Your task to perform on an android device: turn on data saver in the chrome app Image 0: 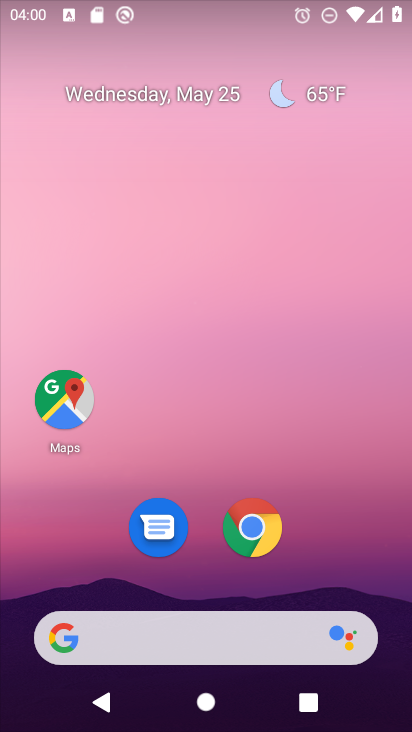
Step 0: drag from (257, 653) to (342, 29)
Your task to perform on an android device: turn on data saver in the chrome app Image 1: 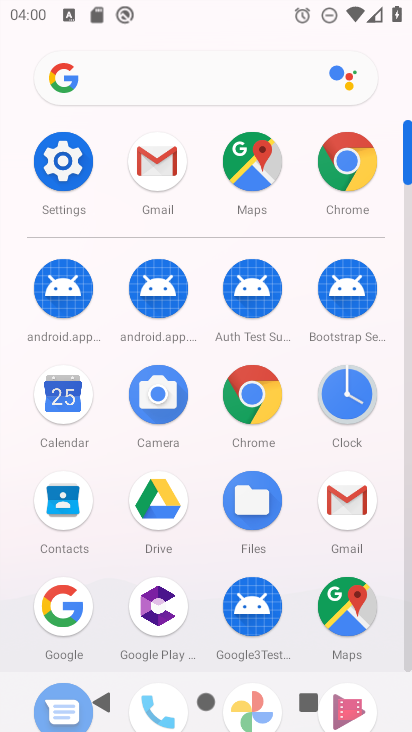
Step 1: click (256, 412)
Your task to perform on an android device: turn on data saver in the chrome app Image 2: 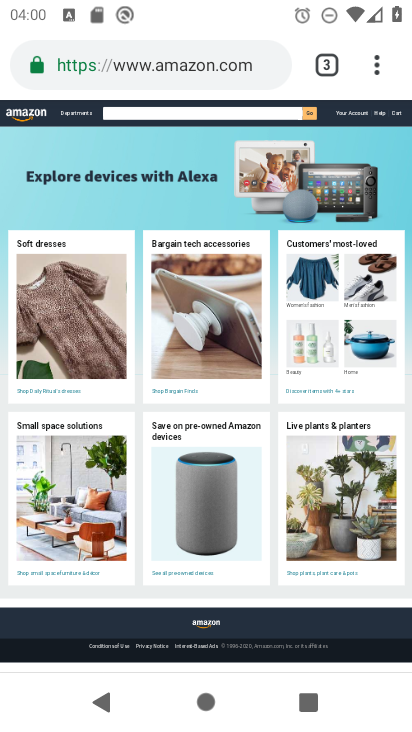
Step 2: drag from (385, 48) to (152, 640)
Your task to perform on an android device: turn on data saver in the chrome app Image 3: 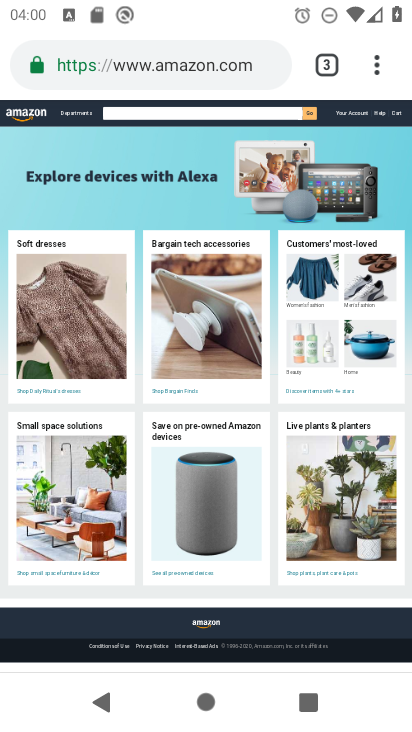
Step 3: drag from (163, 617) to (230, 144)
Your task to perform on an android device: turn on data saver in the chrome app Image 4: 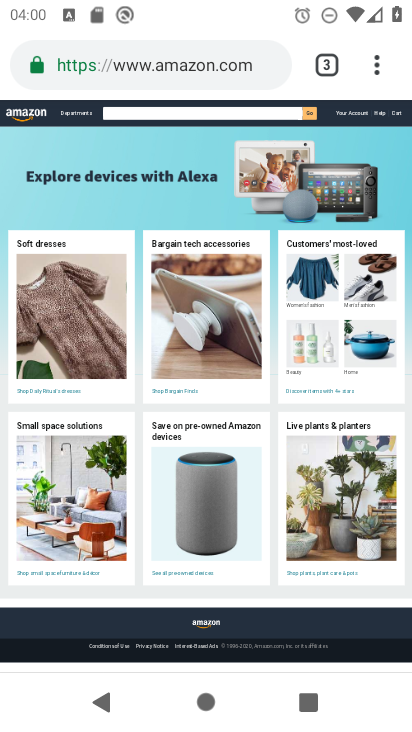
Step 4: drag from (371, 56) to (238, 508)
Your task to perform on an android device: turn on data saver in the chrome app Image 5: 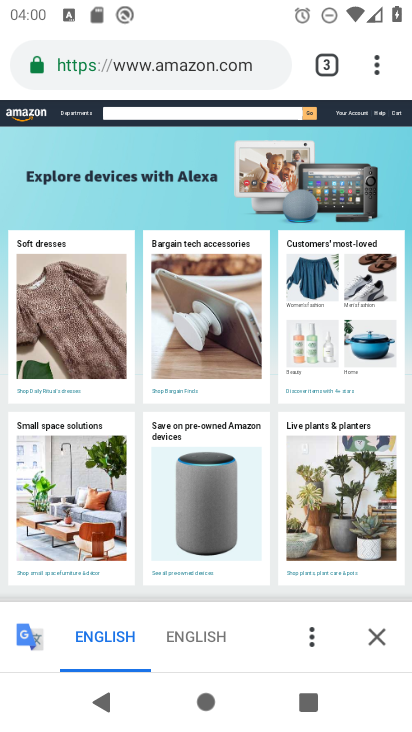
Step 5: drag from (369, 63) to (146, 591)
Your task to perform on an android device: turn on data saver in the chrome app Image 6: 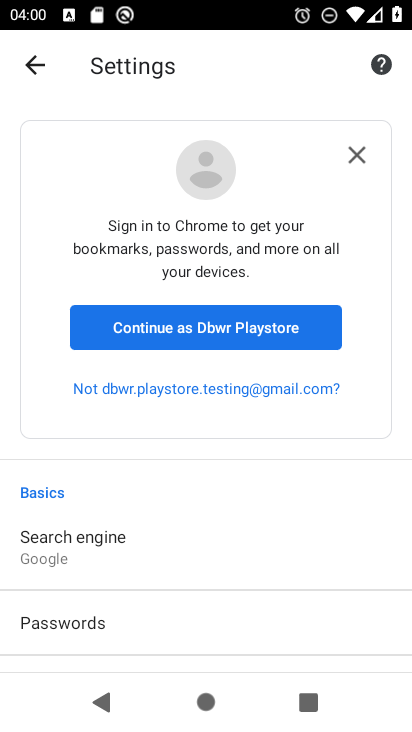
Step 6: drag from (175, 625) to (262, 125)
Your task to perform on an android device: turn on data saver in the chrome app Image 7: 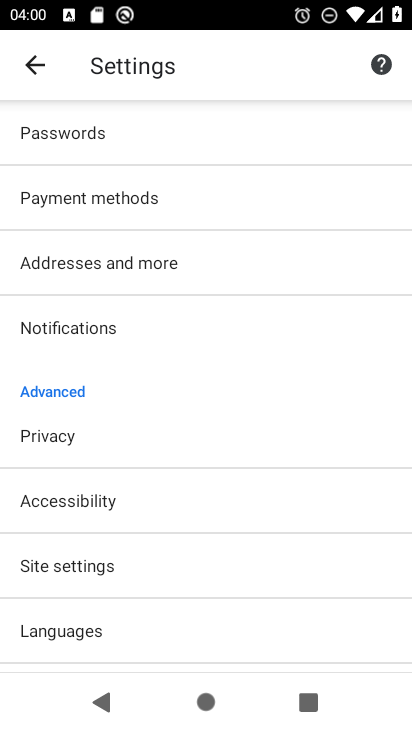
Step 7: drag from (156, 614) to (286, 94)
Your task to perform on an android device: turn on data saver in the chrome app Image 8: 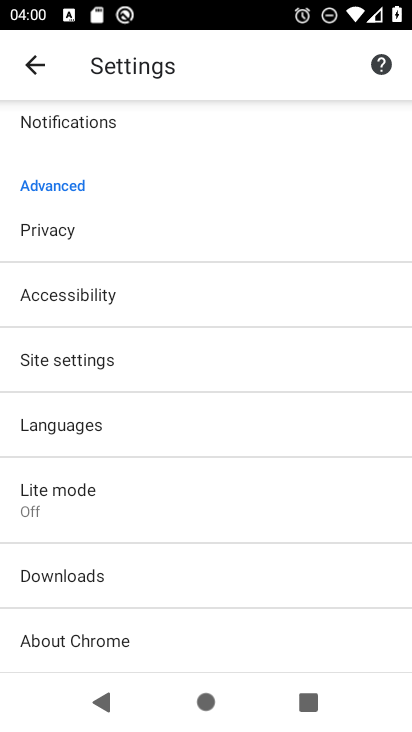
Step 8: click (105, 475)
Your task to perform on an android device: turn on data saver in the chrome app Image 9: 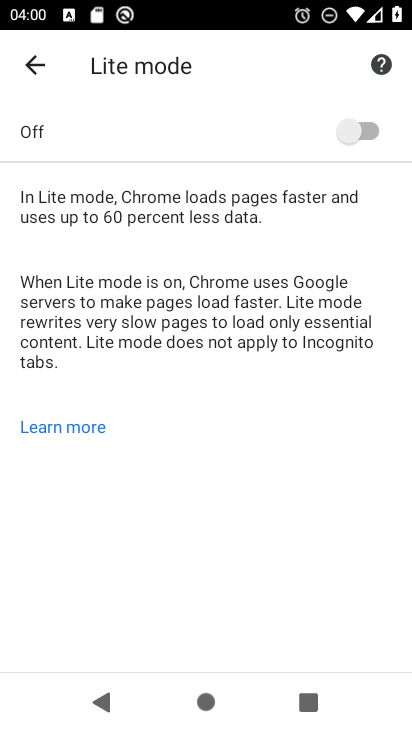
Step 9: click (375, 130)
Your task to perform on an android device: turn on data saver in the chrome app Image 10: 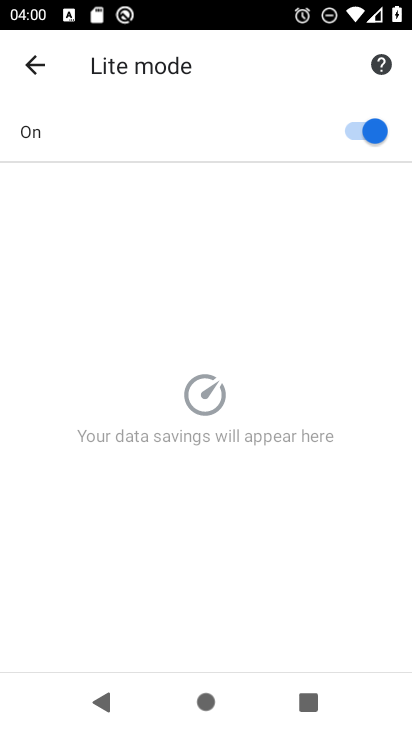
Step 10: task complete